Your task to perform on an android device: toggle javascript in the chrome app Image 0: 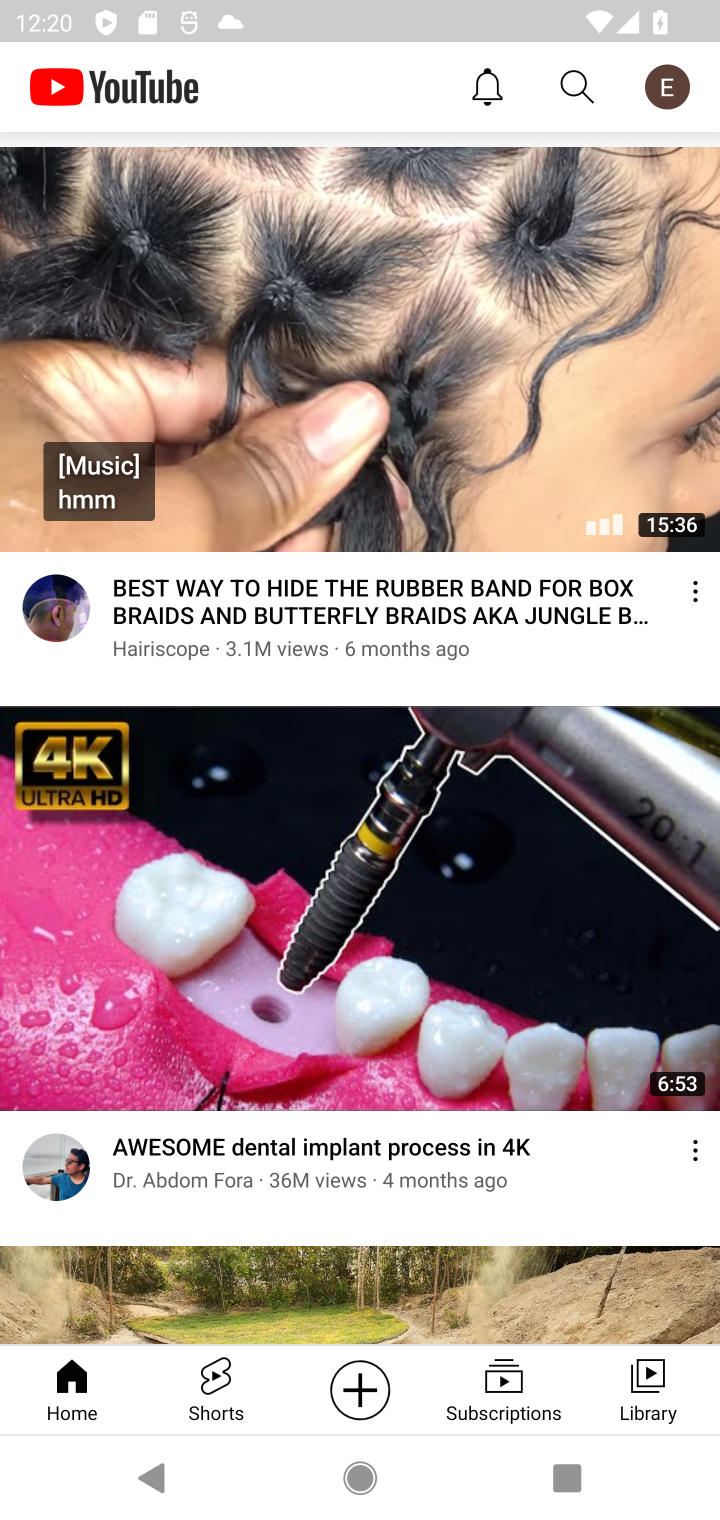
Step 0: press home button
Your task to perform on an android device: toggle javascript in the chrome app Image 1: 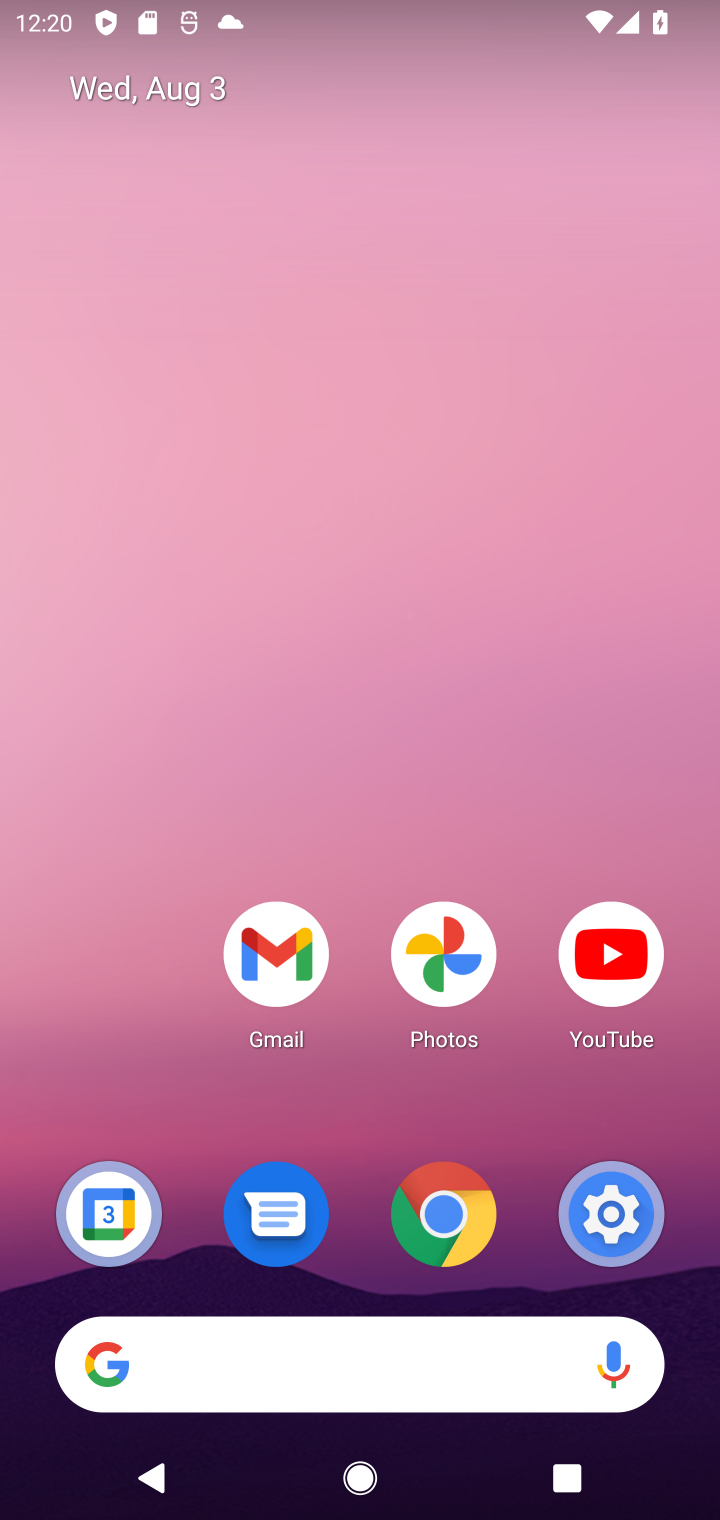
Step 1: click (469, 1214)
Your task to perform on an android device: toggle javascript in the chrome app Image 2: 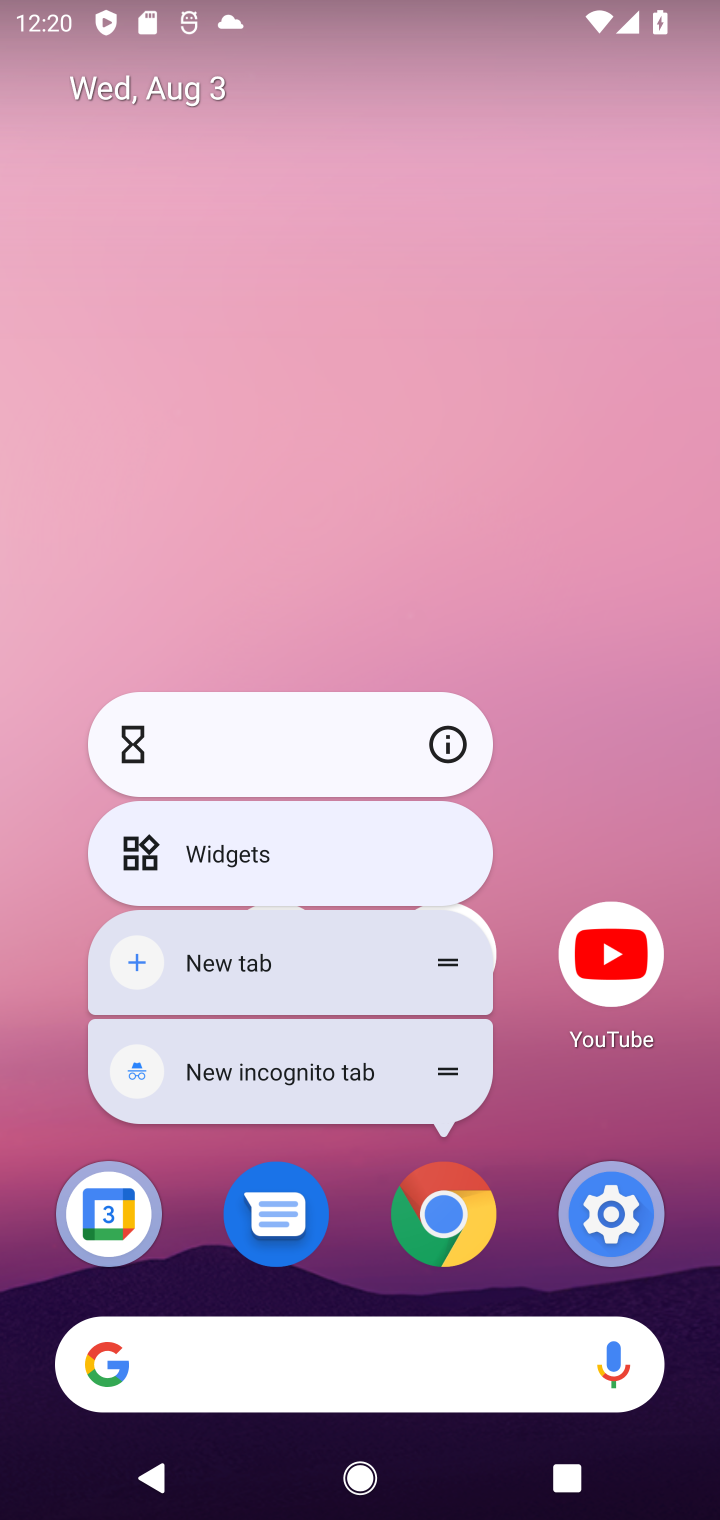
Step 2: click (469, 1214)
Your task to perform on an android device: toggle javascript in the chrome app Image 3: 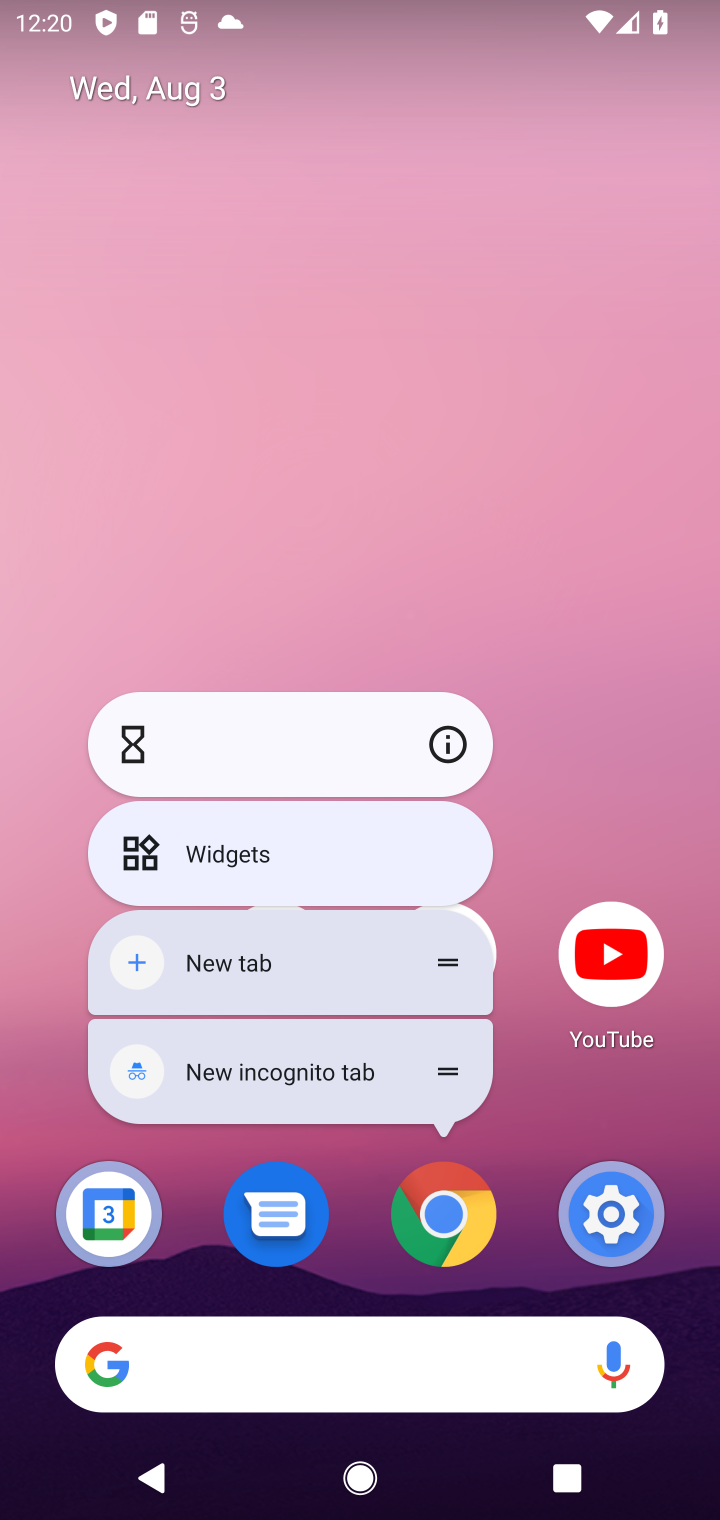
Step 3: click (469, 1214)
Your task to perform on an android device: toggle javascript in the chrome app Image 4: 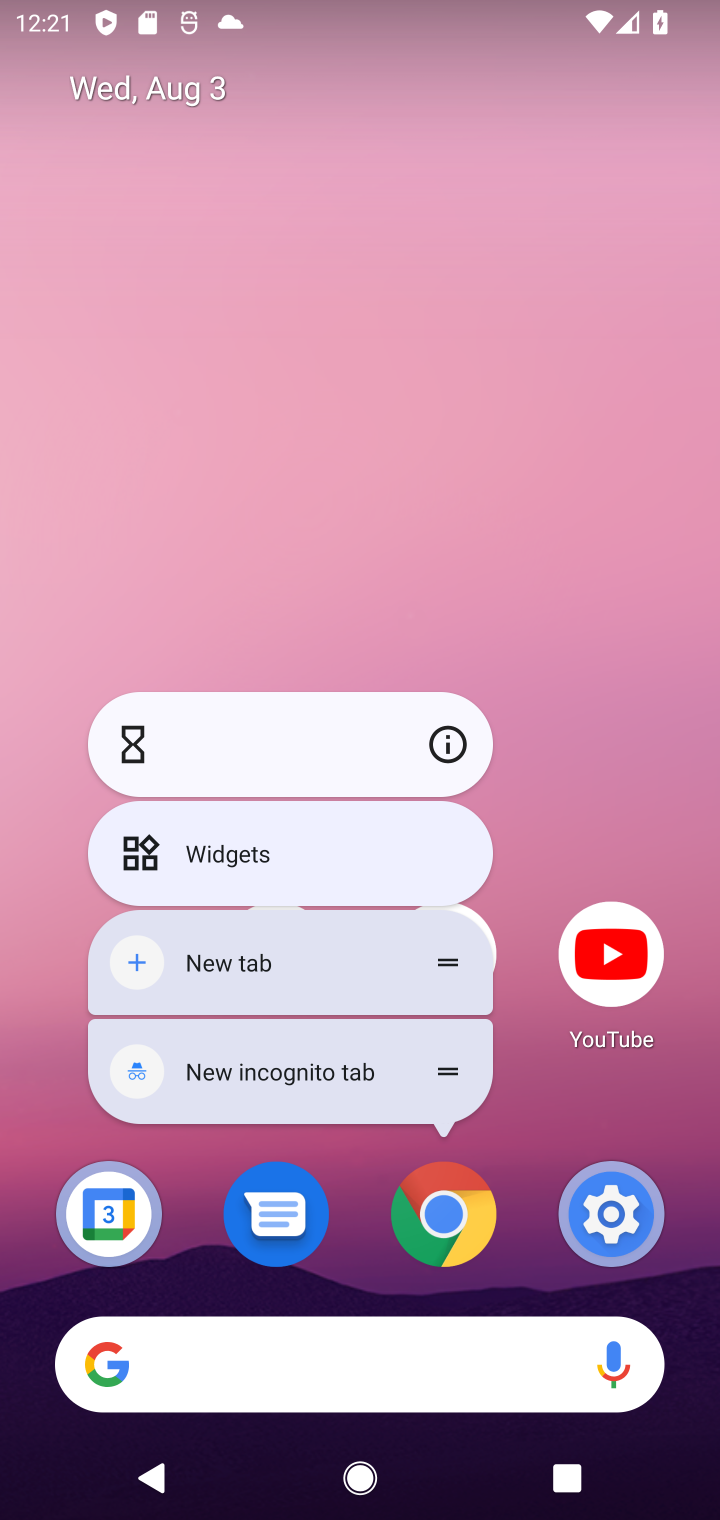
Step 4: click (433, 1205)
Your task to perform on an android device: toggle javascript in the chrome app Image 5: 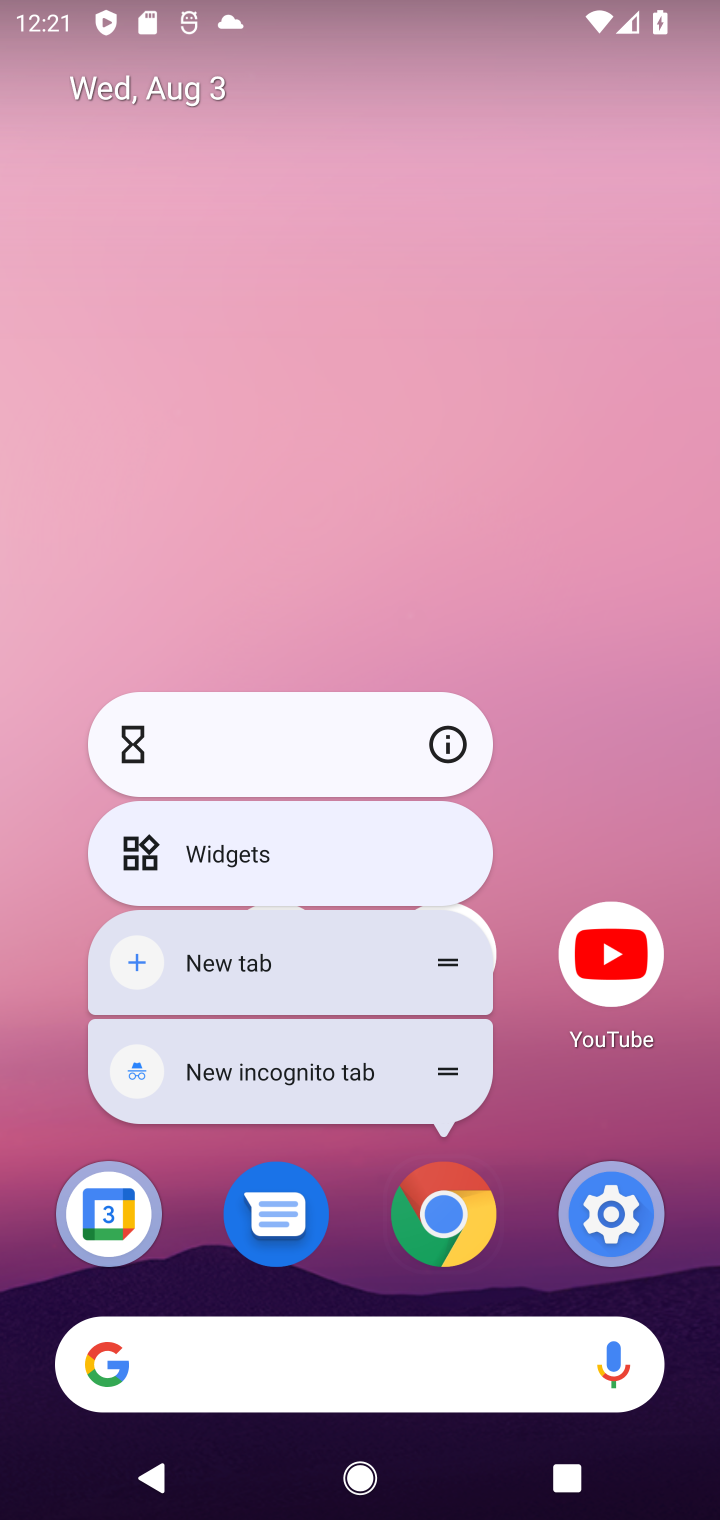
Step 5: click (451, 1260)
Your task to perform on an android device: toggle javascript in the chrome app Image 6: 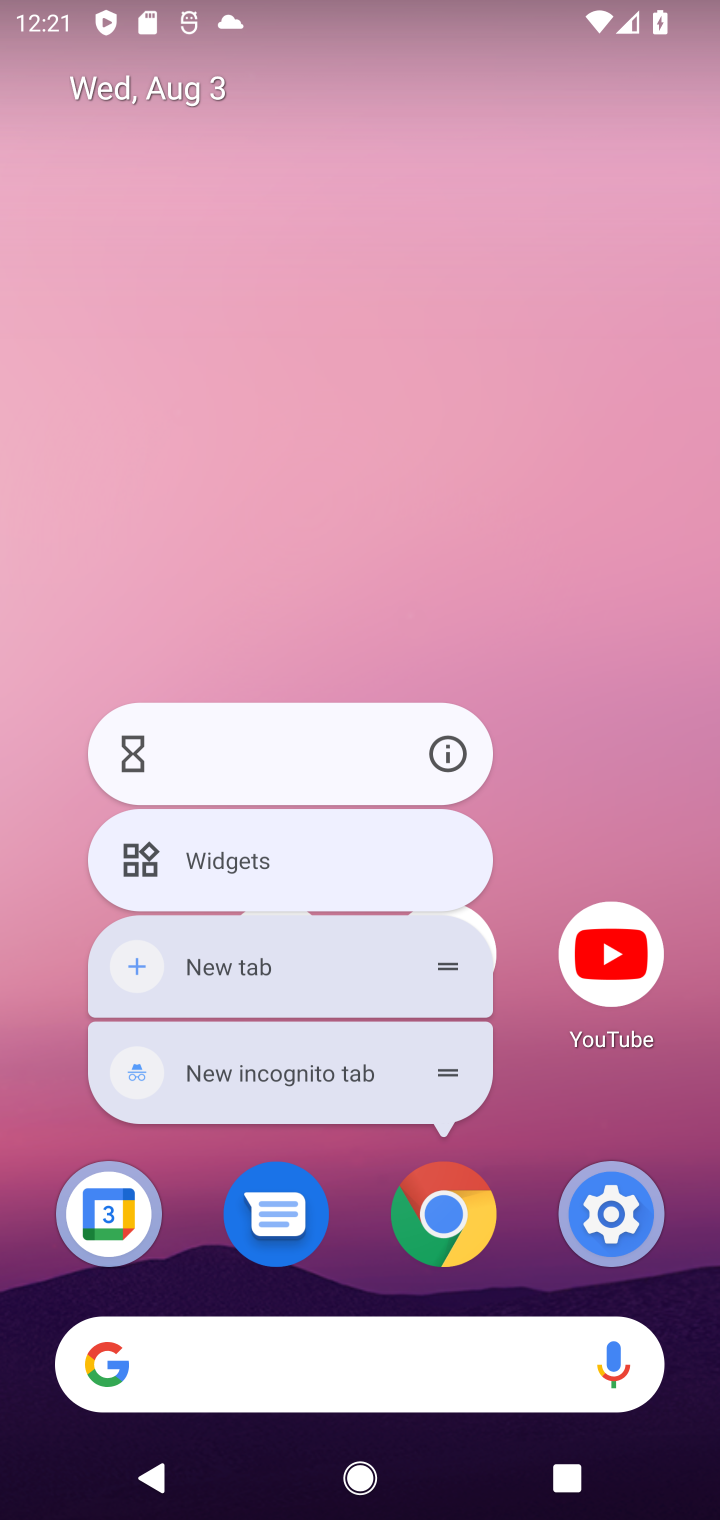
Step 6: click (458, 1230)
Your task to perform on an android device: toggle javascript in the chrome app Image 7: 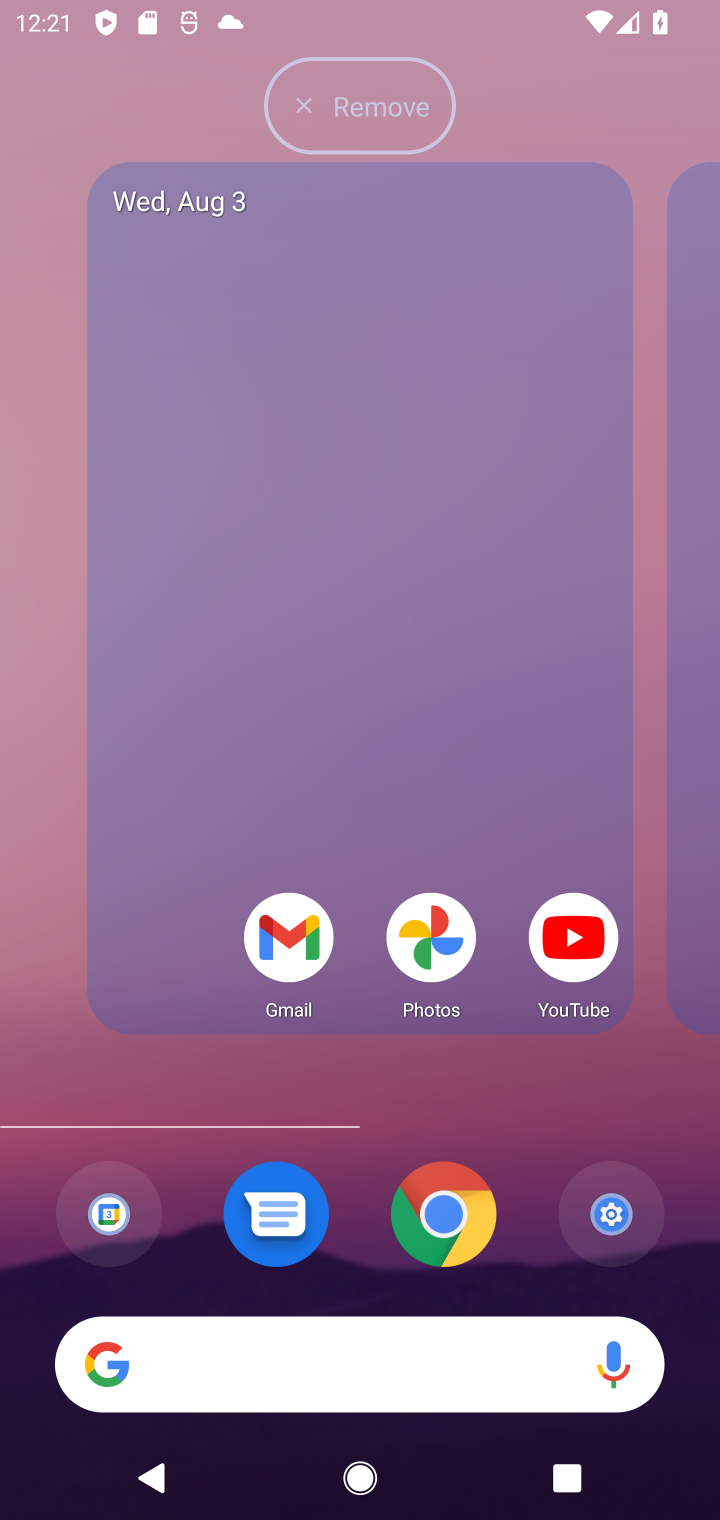
Step 7: click (458, 1245)
Your task to perform on an android device: toggle javascript in the chrome app Image 8: 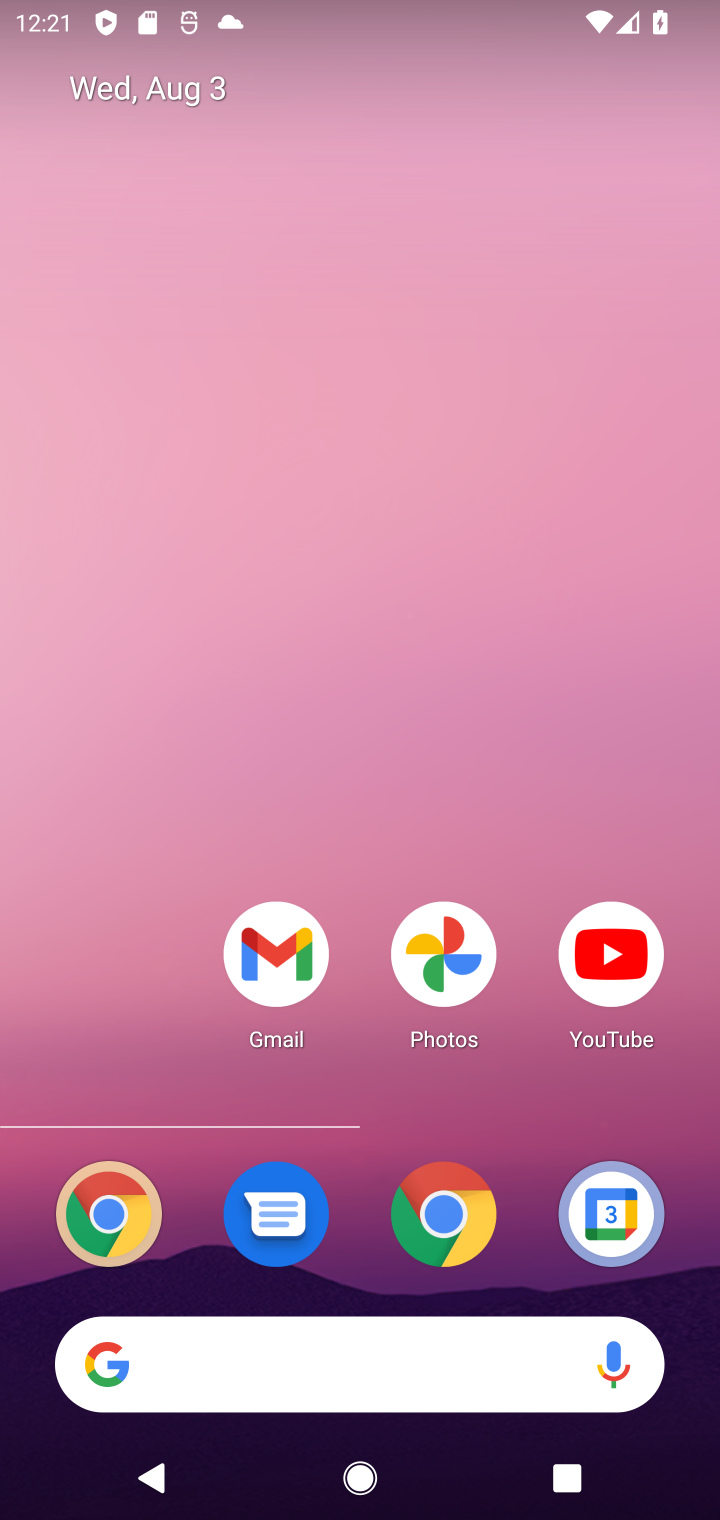
Step 8: drag from (490, 1451) to (540, 447)
Your task to perform on an android device: toggle javascript in the chrome app Image 9: 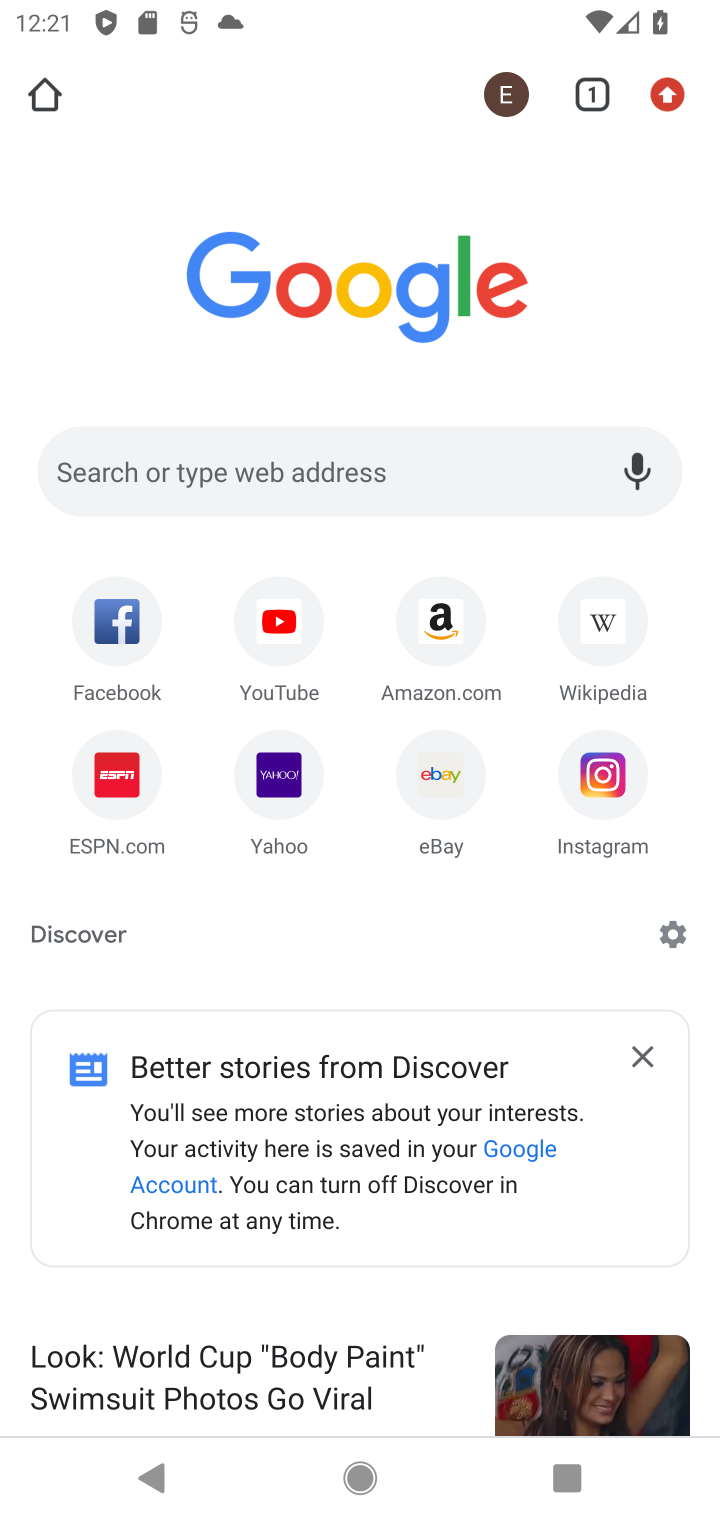
Step 9: click (683, 96)
Your task to perform on an android device: toggle javascript in the chrome app Image 10: 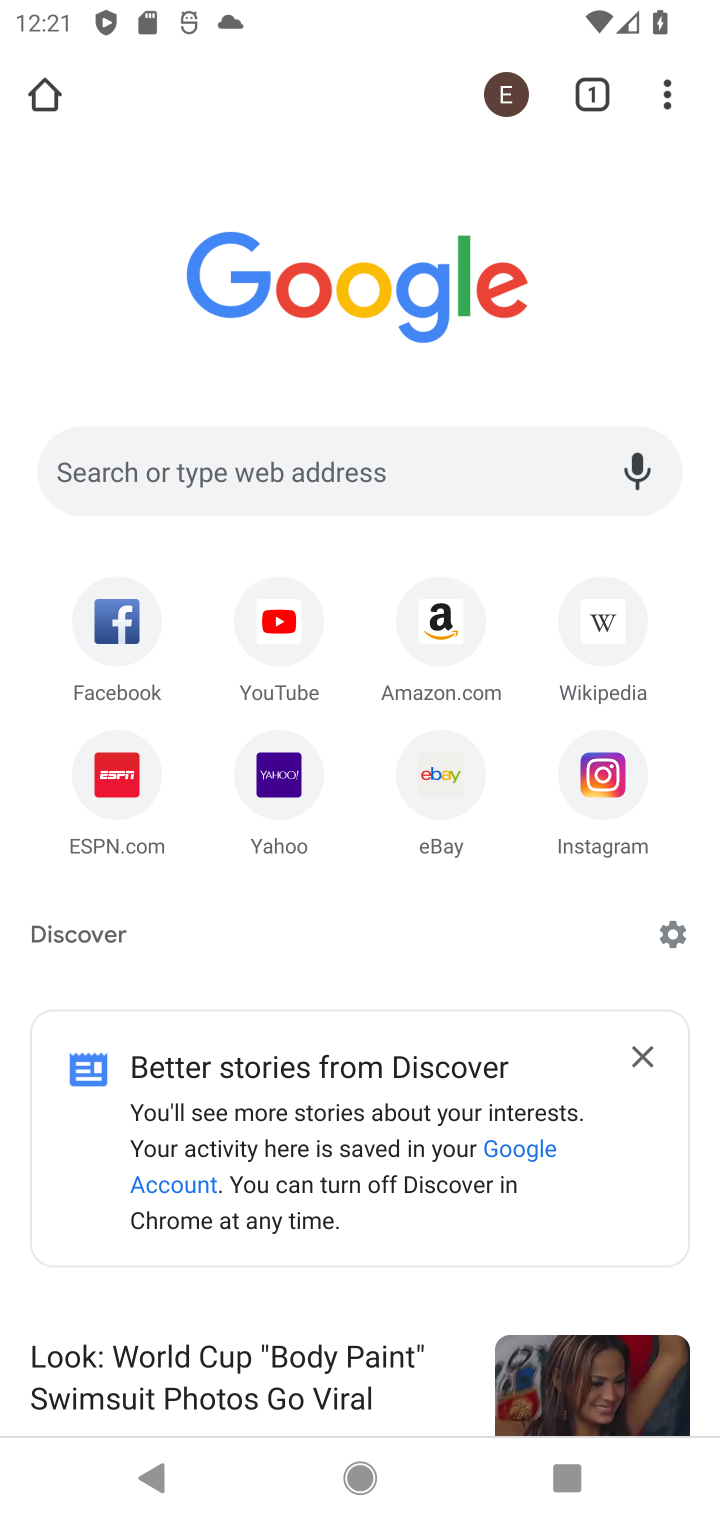
Step 10: click (683, 96)
Your task to perform on an android device: toggle javascript in the chrome app Image 11: 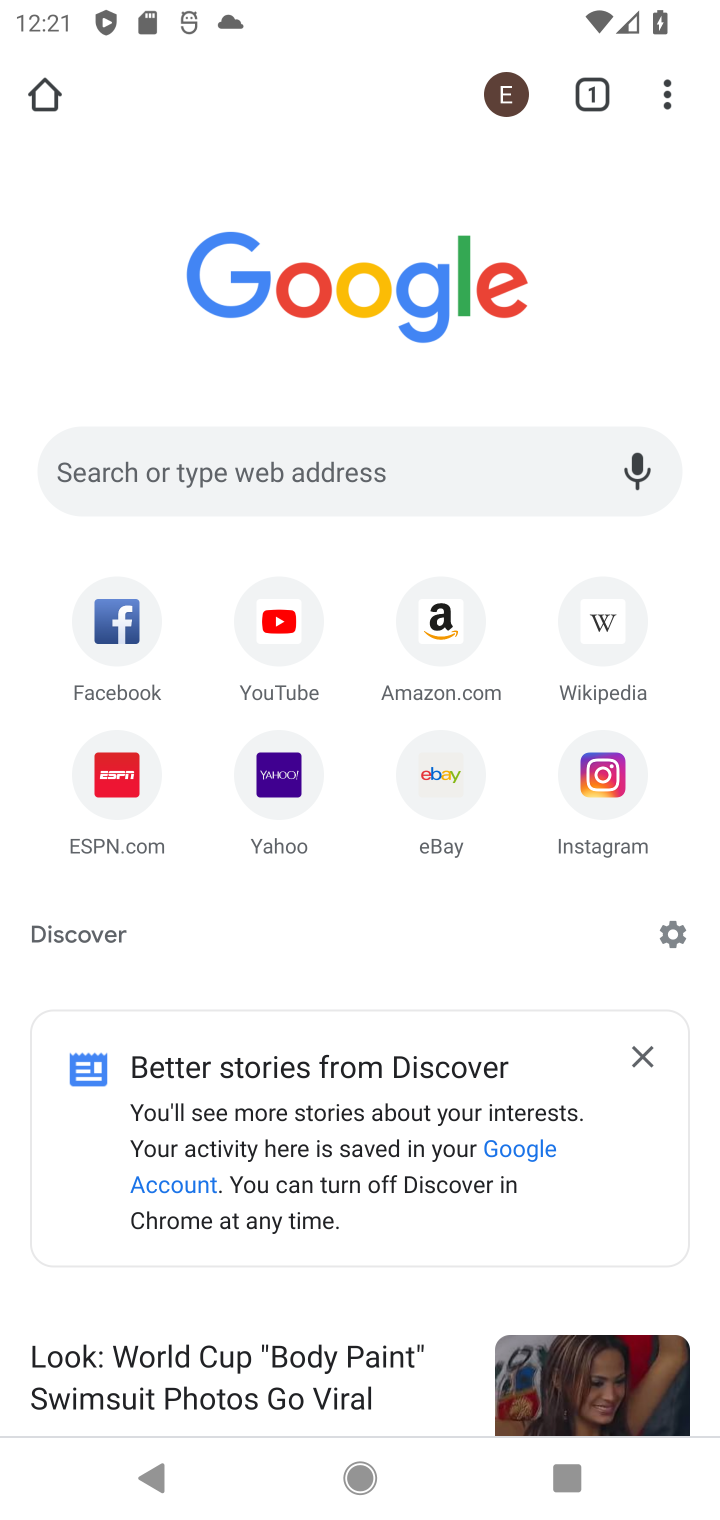
Step 11: click (683, 96)
Your task to perform on an android device: toggle javascript in the chrome app Image 12: 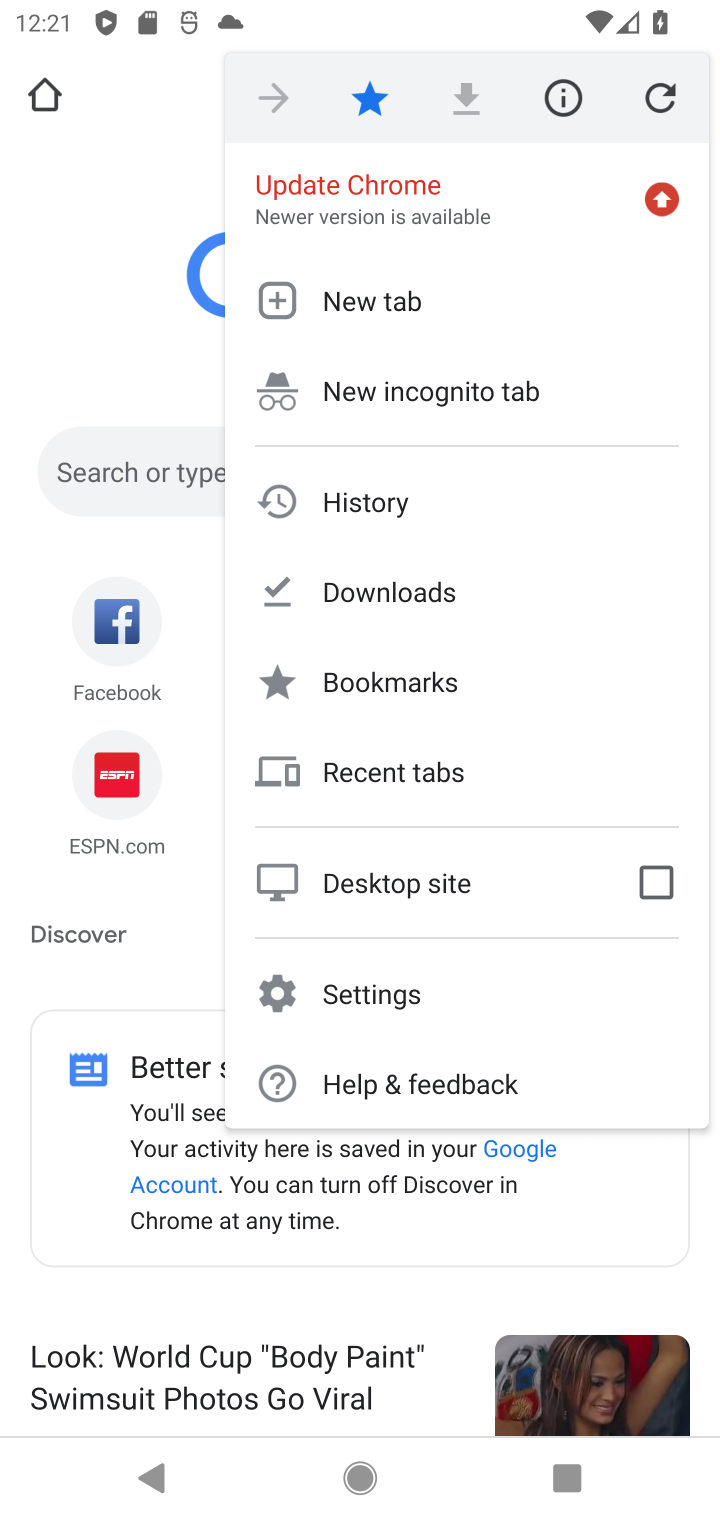
Step 12: click (385, 1012)
Your task to perform on an android device: toggle javascript in the chrome app Image 13: 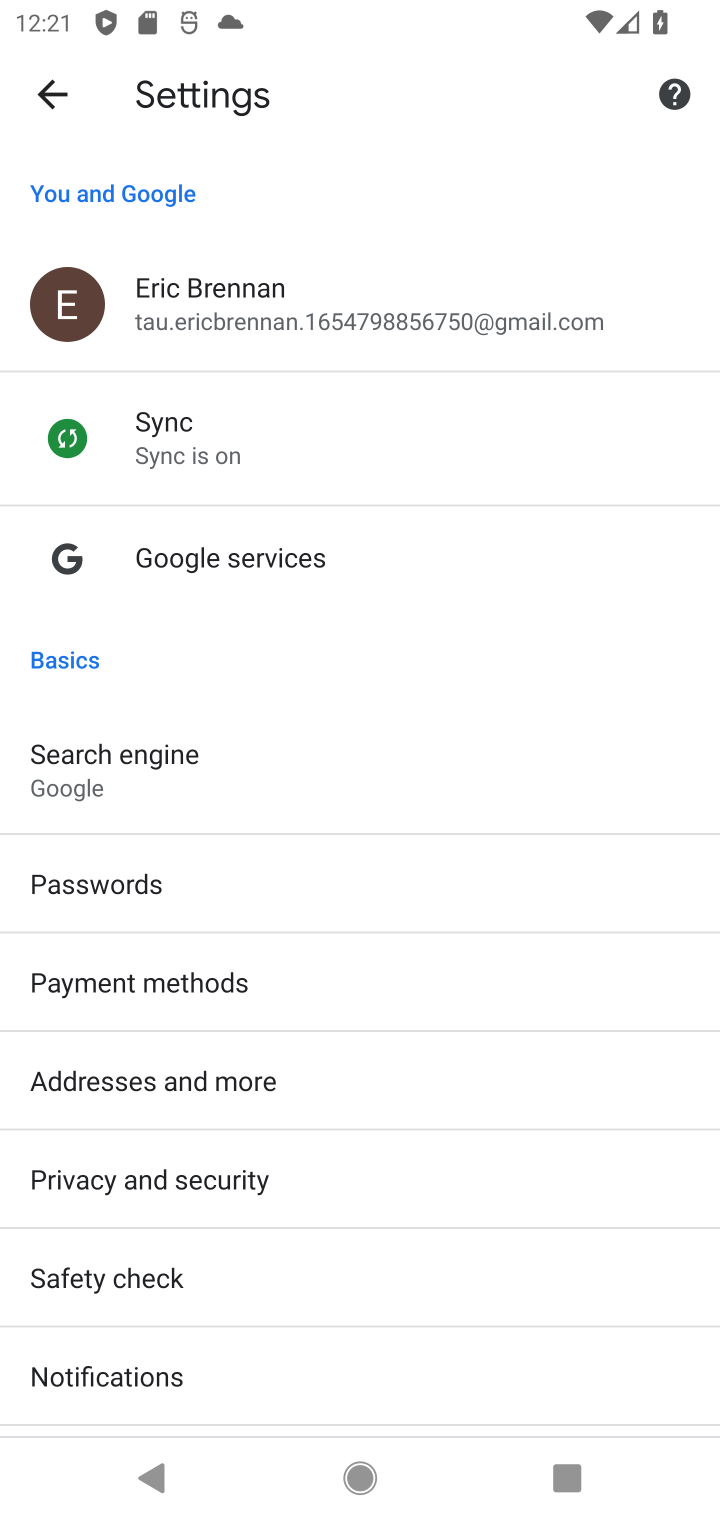
Step 13: drag from (235, 1129) to (220, 177)
Your task to perform on an android device: toggle javascript in the chrome app Image 14: 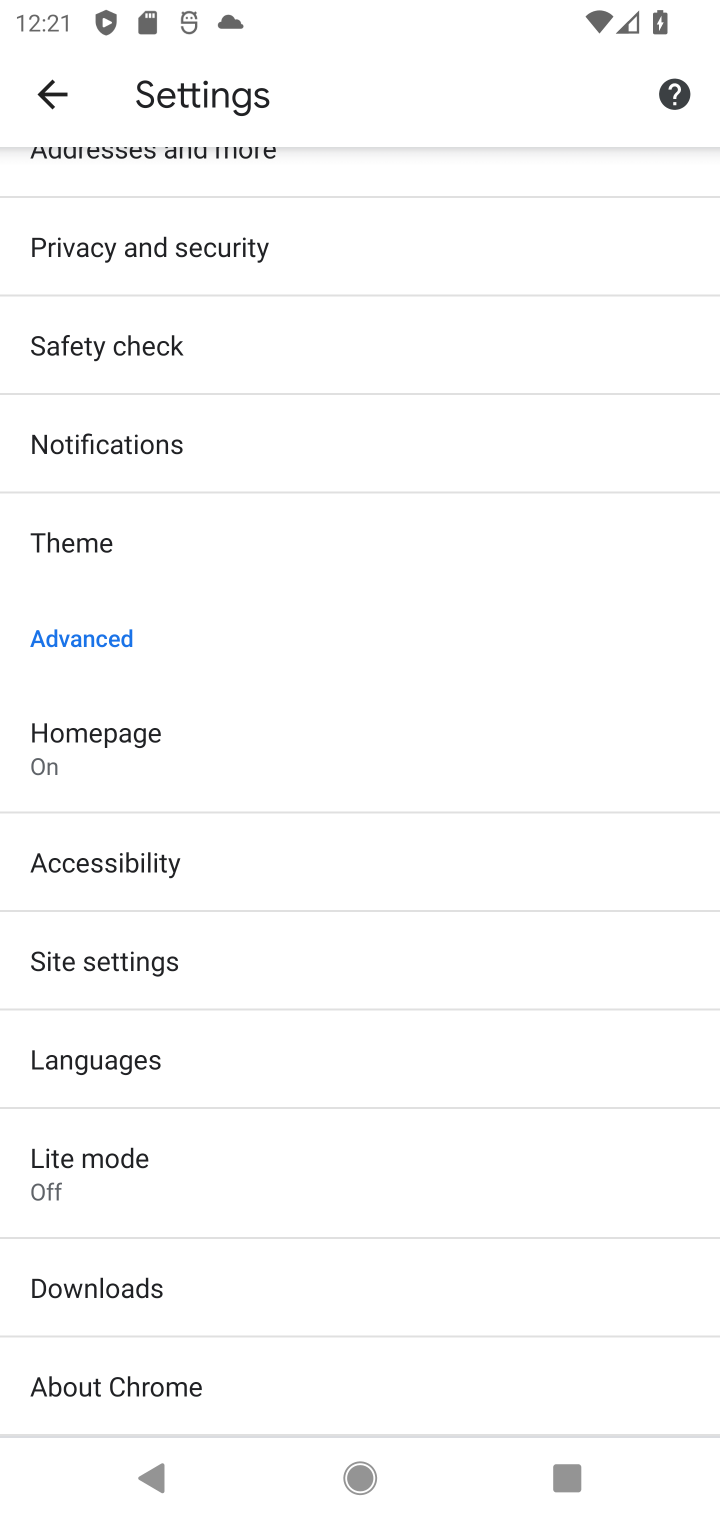
Step 14: click (252, 948)
Your task to perform on an android device: toggle javascript in the chrome app Image 15: 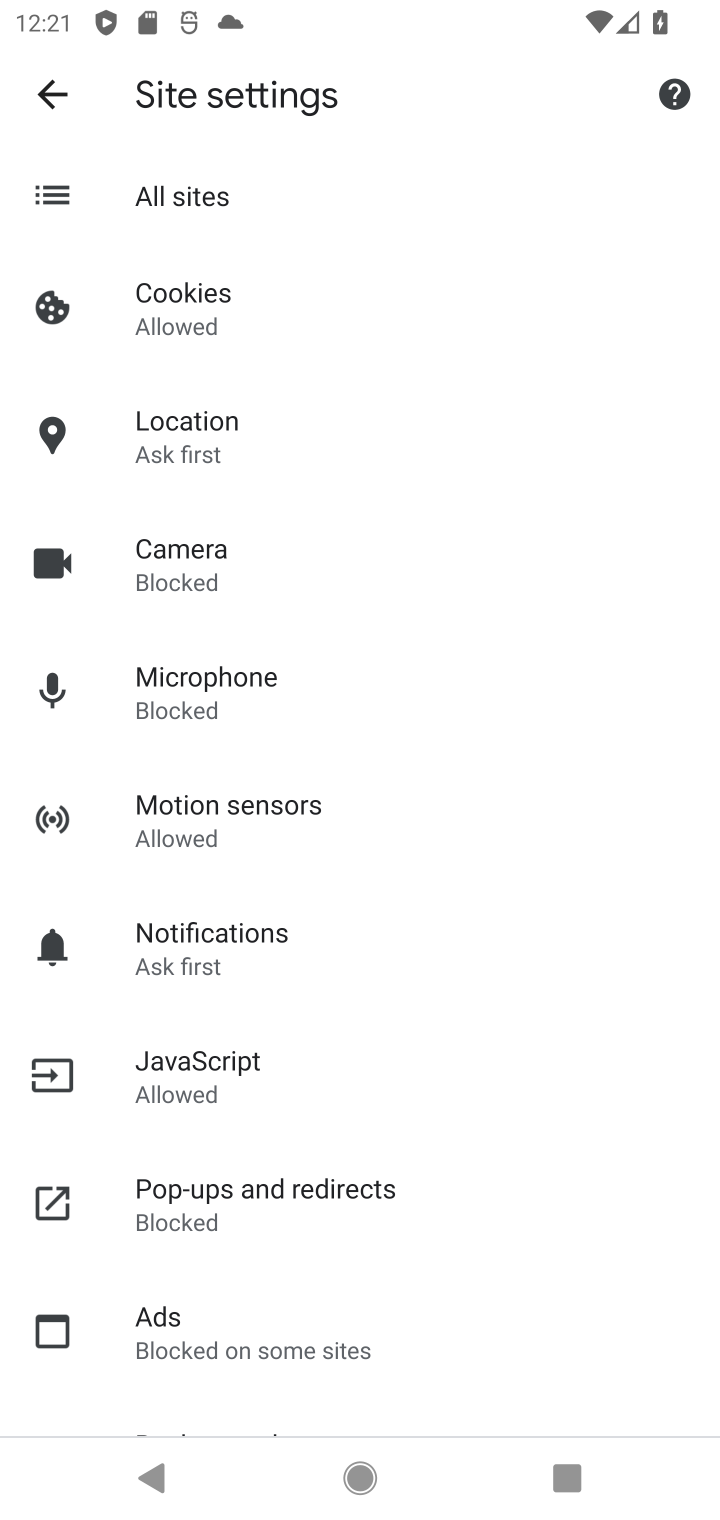
Step 15: click (314, 1071)
Your task to perform on an android device: toggle javascript in the chrome app Image 16: 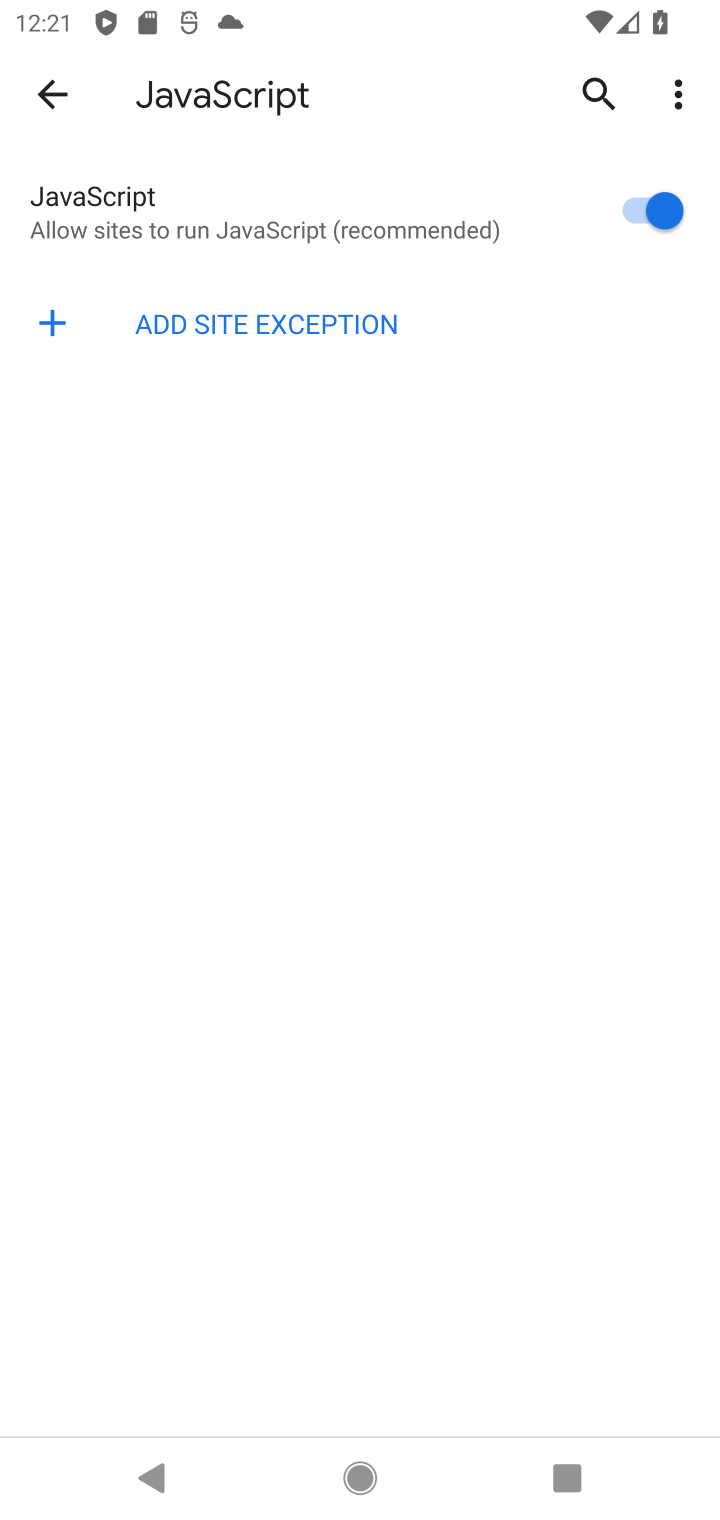
Step 16: click (653, 219)
Your task to perform on an android device: toggle javascript in the chrome app Image 17: 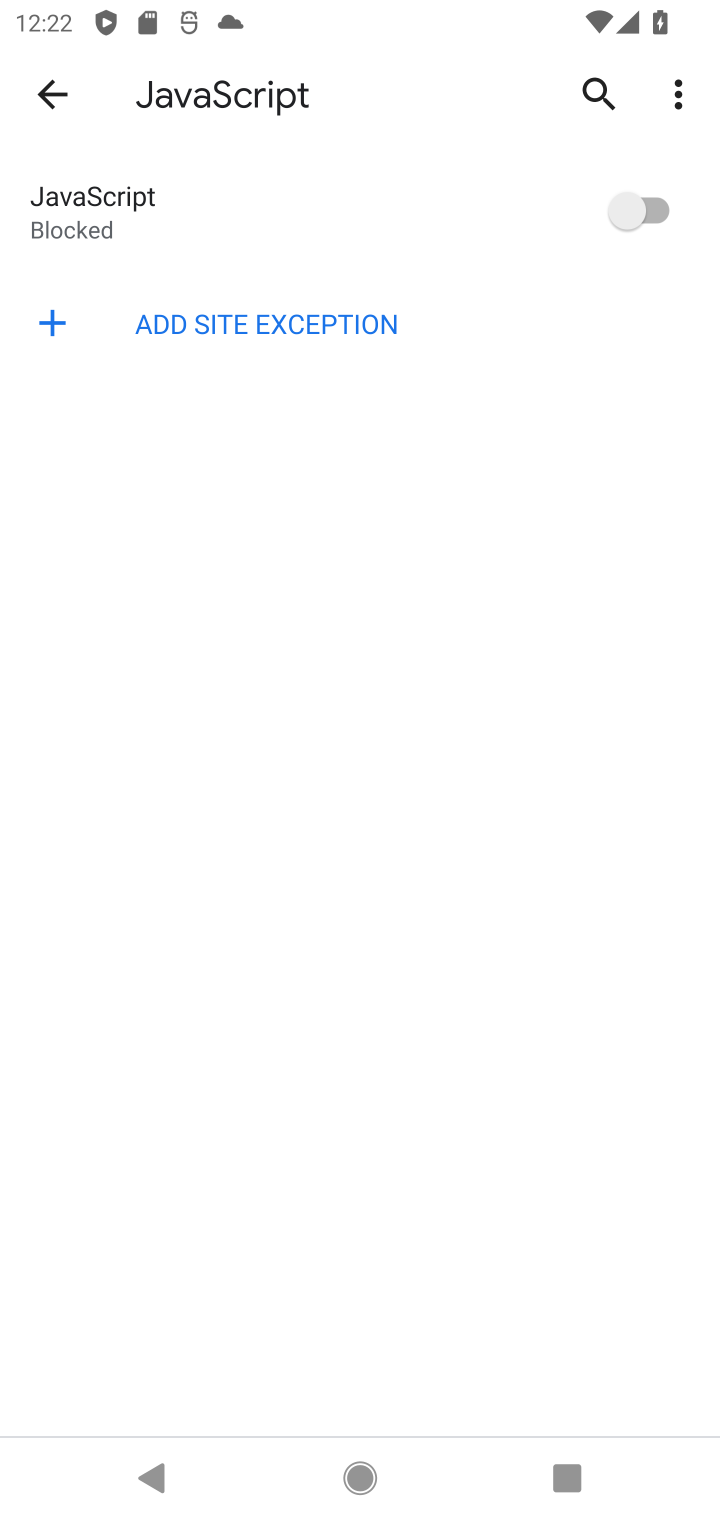
Step 17: task complete